Your task to perform on an android device: Is it going to rain tomorrow? Image 0: 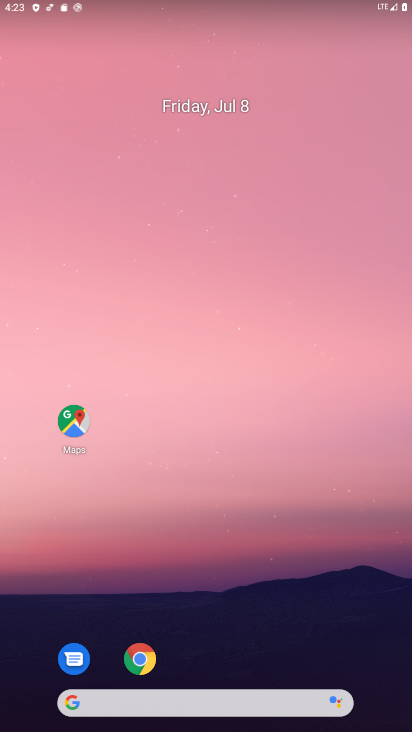
Step 0: press home button
Your task to perform on an android device: Is it going to rain tomorrow? Image 1: 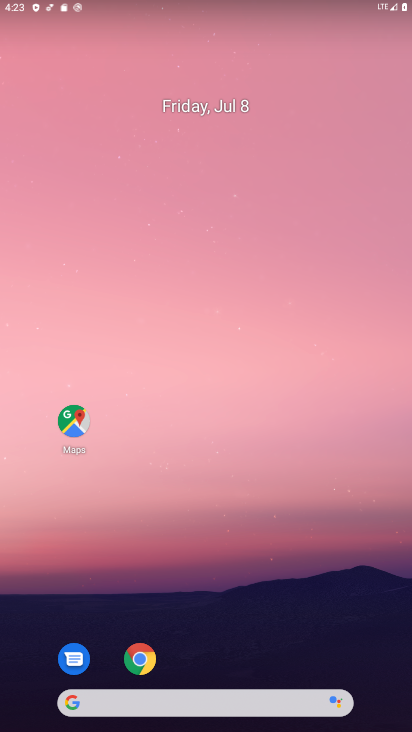
Step 1: press home button
Your task to perform on an android device: Is it going to rain tomorrow? Image 2: 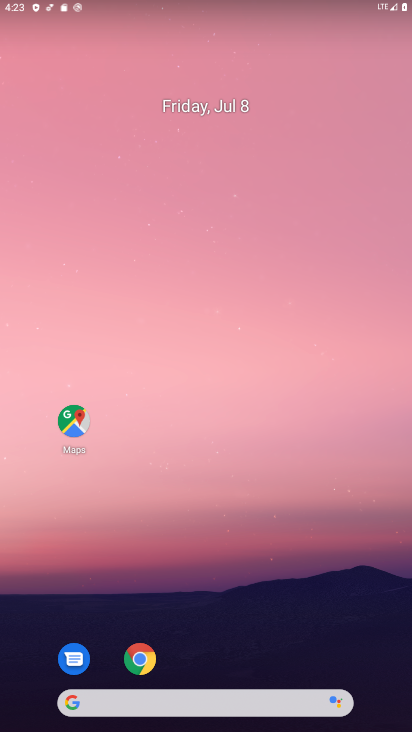
Step 2: click (157, 644)
Your task to perform on an android device: Is it going to rain tomorrow? Image 3: 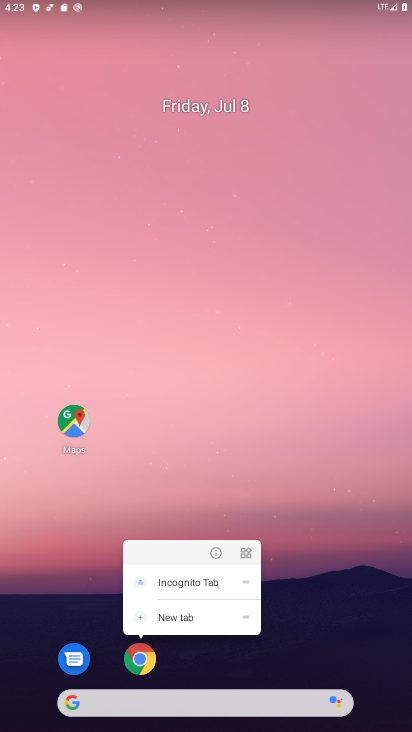
Step 3: click (157, 644)
Your task to perform on an android device: Is it going to rain tomorrow? Image 4: 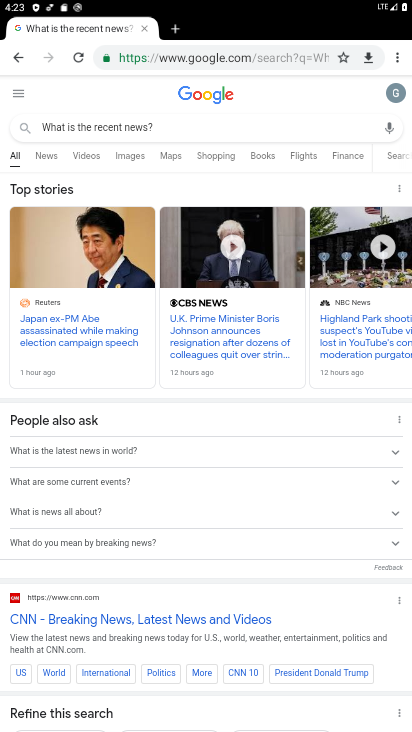
Step 4: click (229, 53)
Your task to perform on an android device: Is it going to rain tomorrow? Image 5: 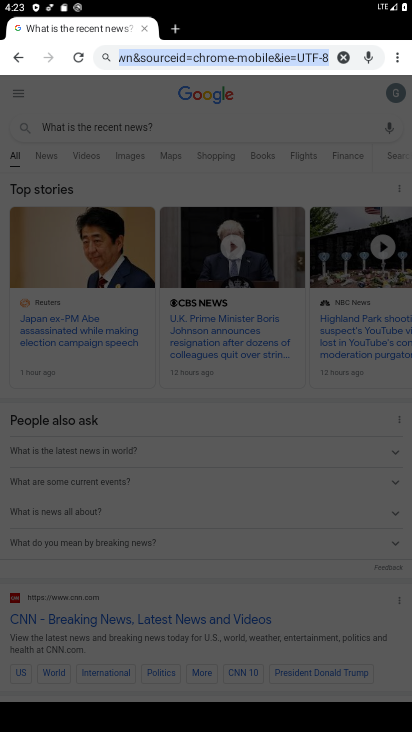
Step 5: type "Is it going to rain tomorrow?"
Your task to perform on an android device: Is it going to rain tomorrow? Image 6: 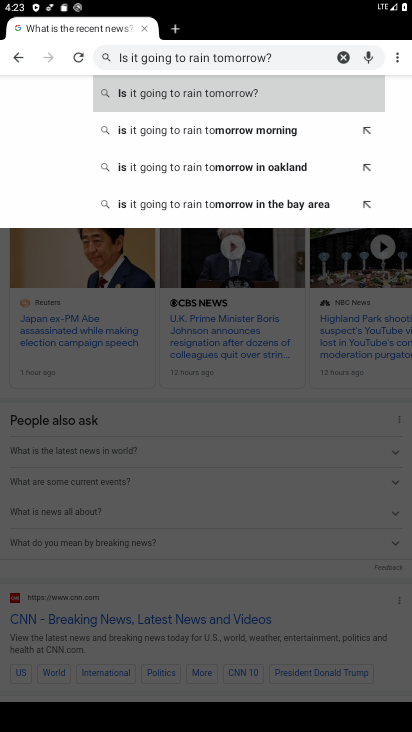
Step 6: click (142, 94)
Your task to perform on an android device: Is it going to rain tomorrow? Image 7: 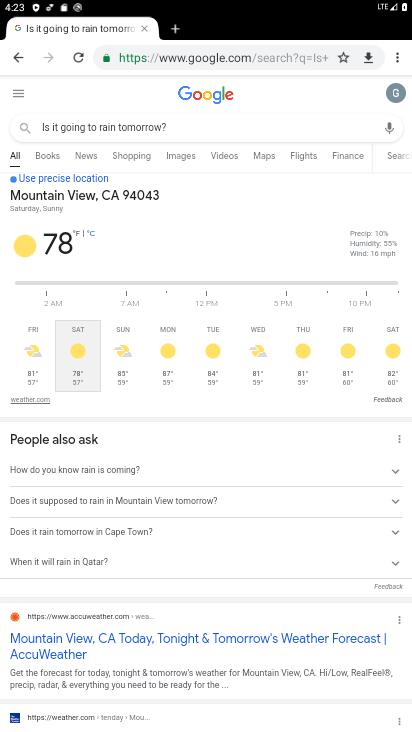
Step 7: task complete